Your task to perform on an android device: set default search engine in the chrome app Image 0: 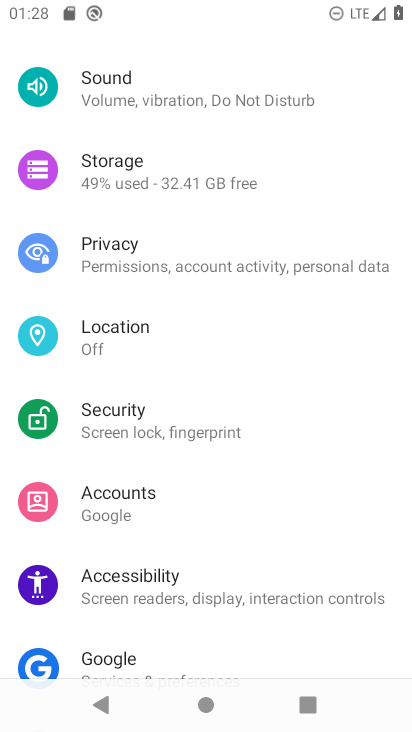
Step 0: press home button
Your task to perform on an android device: set default search engine in the chrome app Image 1: 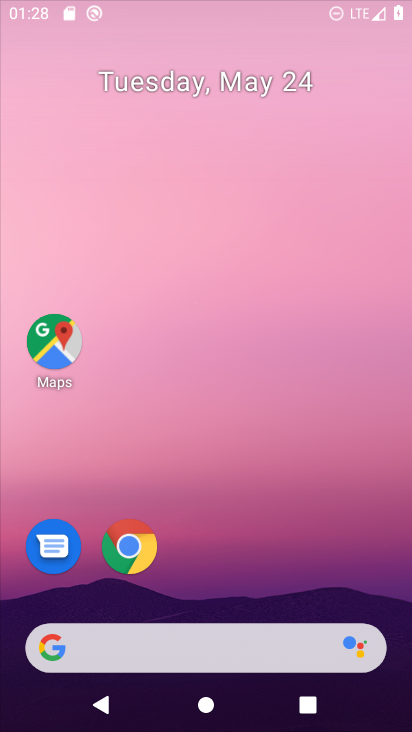
Step 1: drag from (306, 632) to (367, 26)
Your task to perform on an android device: set default search engine in the chrome app Image 2: 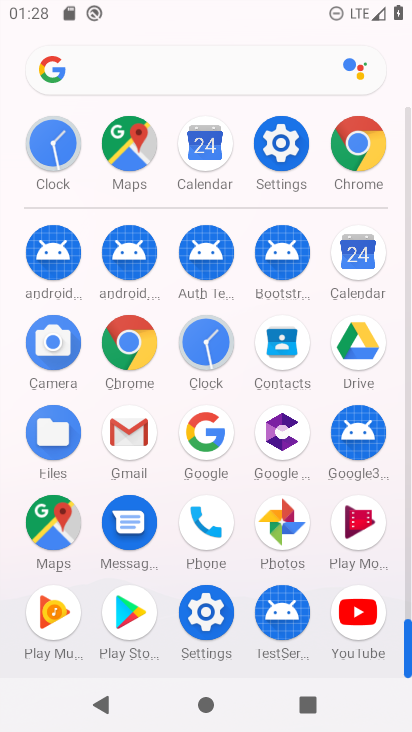
Step 2: click (126, 347)
Your task to perform on an android device: set default search engine in the chrome app Image 3: 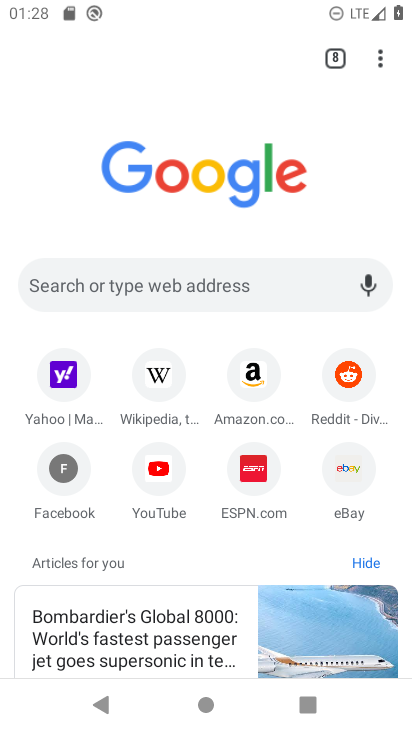
Step 3: drag from (380, 59) to (185, 502)
Your task to perform on an android device: set default search engine in the chrome app Image 4: 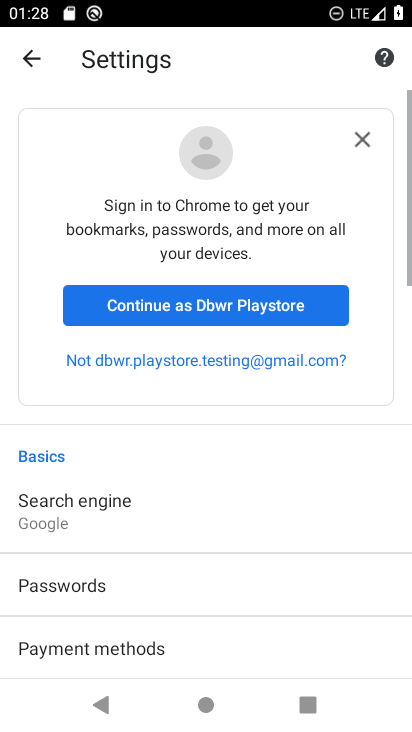
Step 4: drag from (280, 584) to (387, 10)
Your task to perform on an android device: set default search engine in the chrome app Image 5: 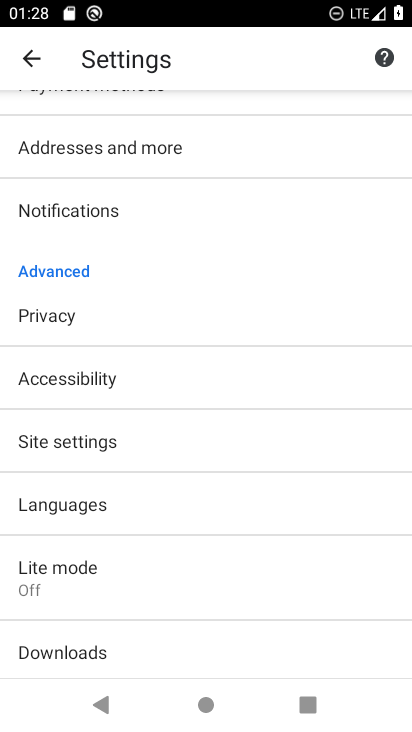
Step 5: click (96, 450)
Your task to perform on an android device: set default search engine in the chrome app Image 6: 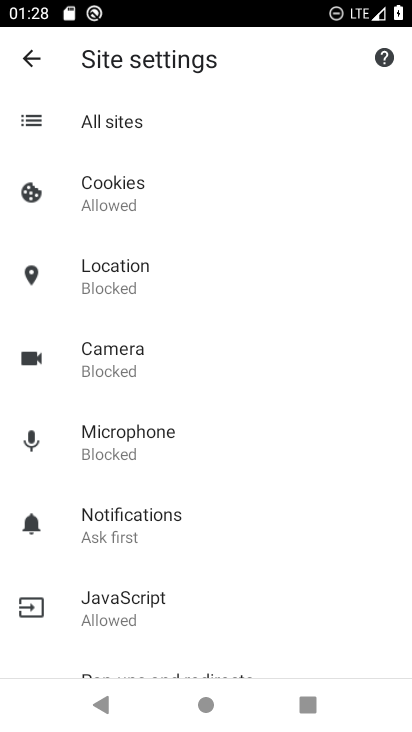
Step 6: press back button
Your task to perform on an android device: set default search engine in the chrome app Image 7: 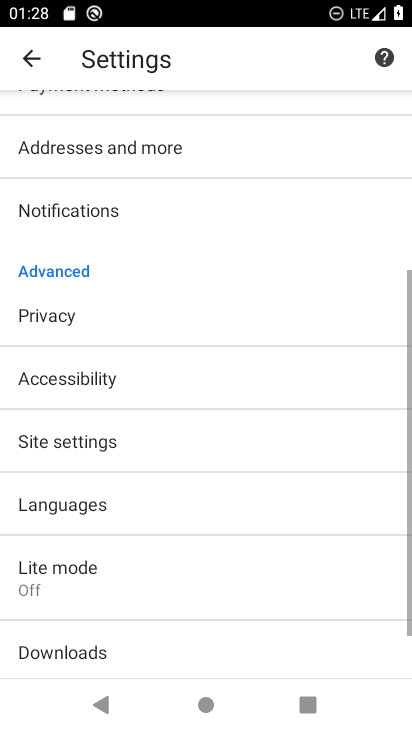
Step 7: drag from (162, 308) to (151, 684)
Your task to perform on an android device: set default search engine in the chrome app Image 8: 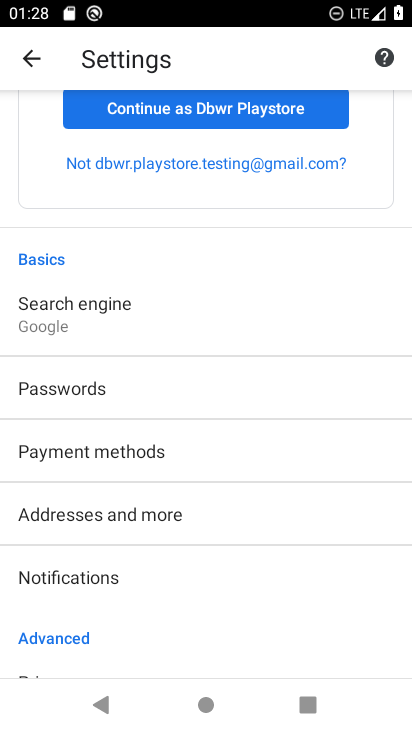
Step 8: click (125, 320)
Your task to perform on an android device: set default search engine in the chrome app Image 9: 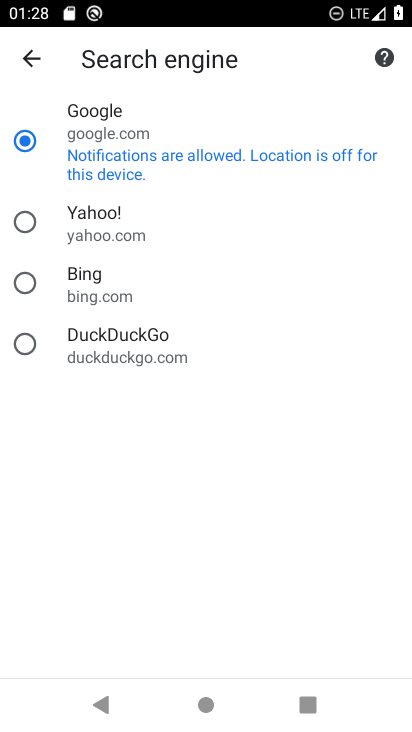
Step 9: task complete